Your task to perform on an android device: Go to internet settings Image 0: 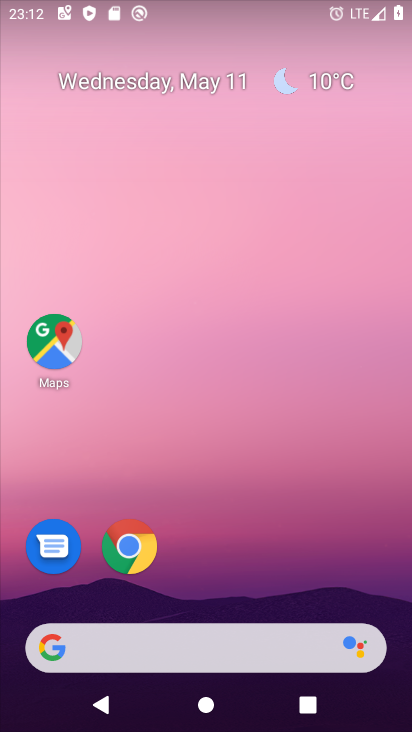
Step 0: drag from (406, 640) to (283, 150)
Your task to perform on an android device: Go to internet settings Image 1: 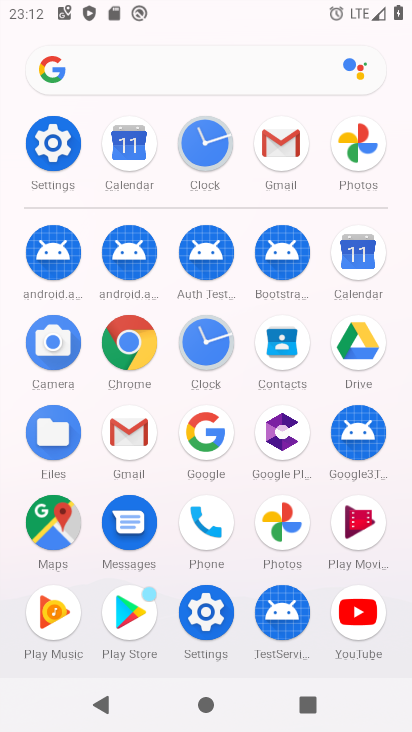
Step 1: click (207, 609)
Your task to perform on an android device: Go to internet settings Image 2: 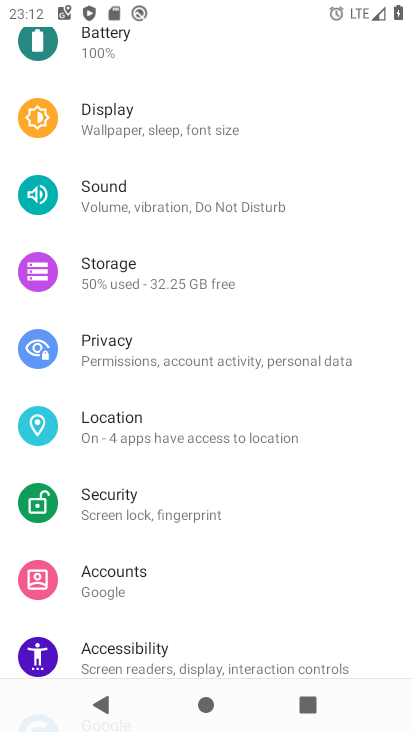
Step 2: drag from (337, 142) to (360, 386)
Your task to perform on an android device: Go to internet settings Image 3: 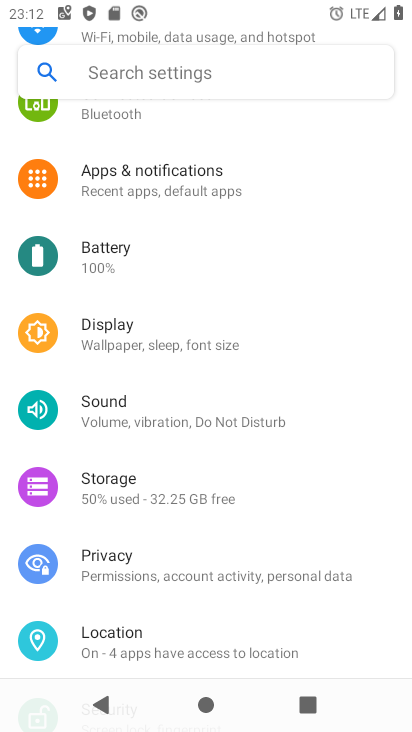
Step 3: drag from (354, 194) to (342, 508)
Your task to perform on an android device: Go to internet settings Image 4: 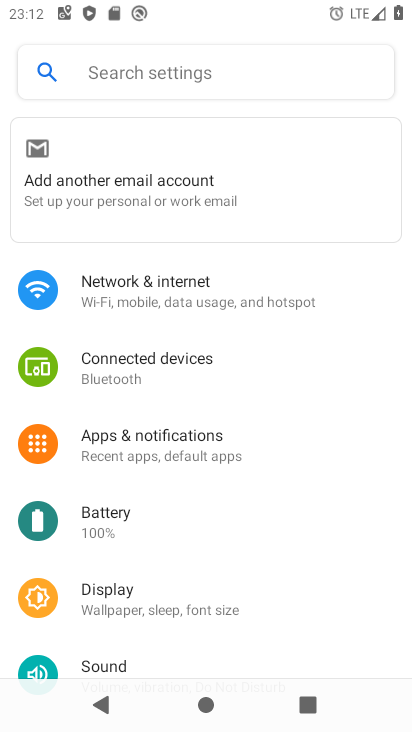
Step 4: click (132, 286)
Your task to perform on an android device: Go to internet settings Image 5: 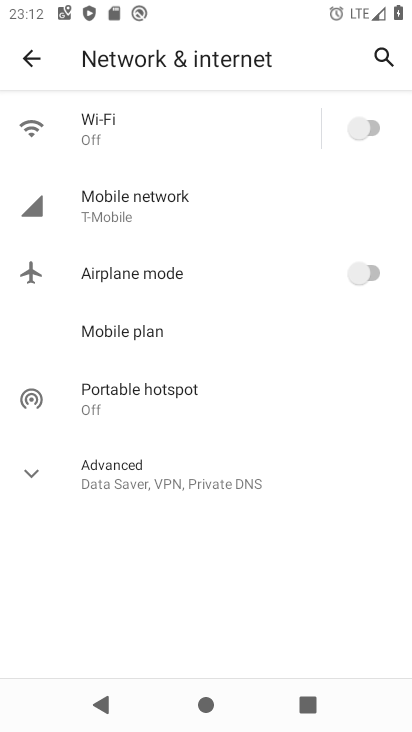
Step 5: click (115, 197)
Your task to perform on an android device: Go to internet settings Image 6: 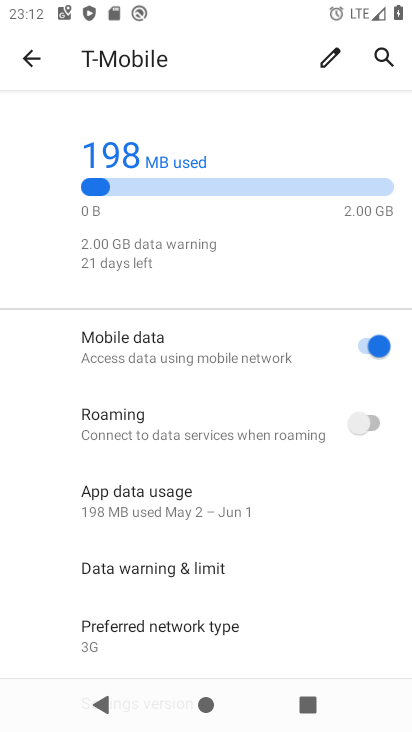
Step 6: task complete